Your task to perform on an android device: Open calendar and show me the first week of next month Image 0: 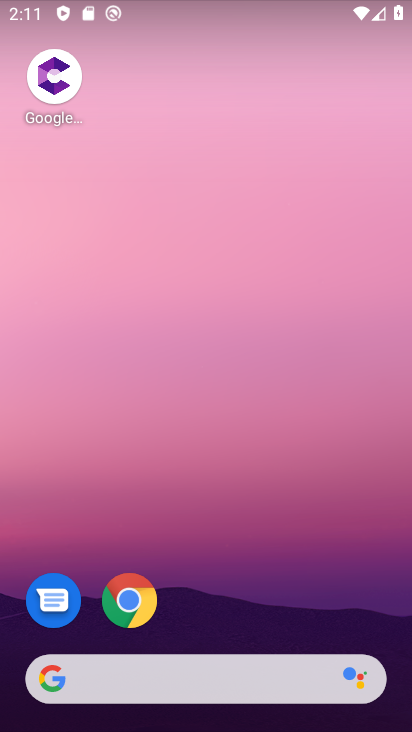
Step 0: drag from (197, 603) to (222, 3)
Your task to perform on an android device: Open calendar and show me the first week of next month Image 1: 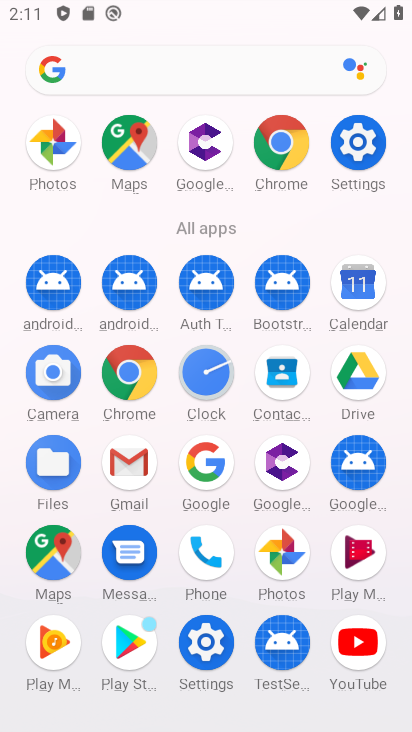
Step 1: click (349, 296)
Your task to perform on an android device: Open calendar and show me the first week of next month Image 2: 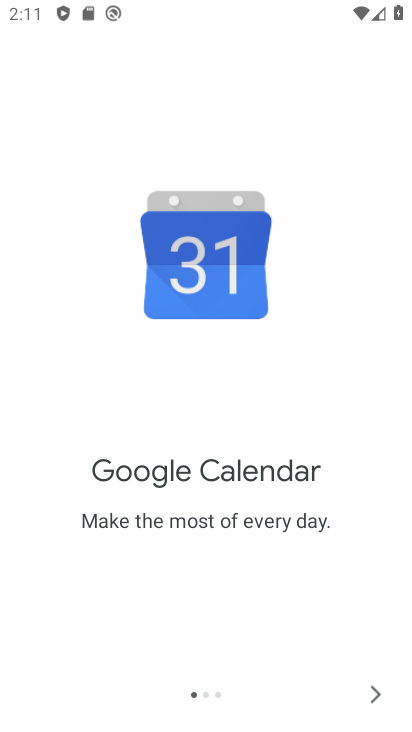
Step 2: click (377, 690)
Your task to perform on an android device: Open calendar and show me the first week of next month Image 3: 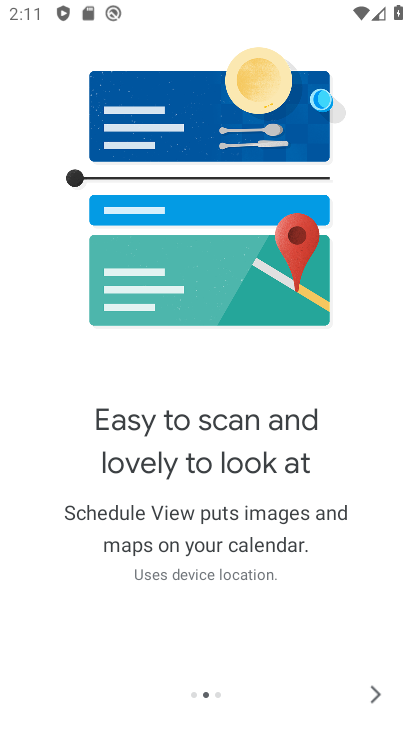
Step 3: click (377, 690)
Your task to perform on an android device: Open calendar and show me the first week of next month Image 4: 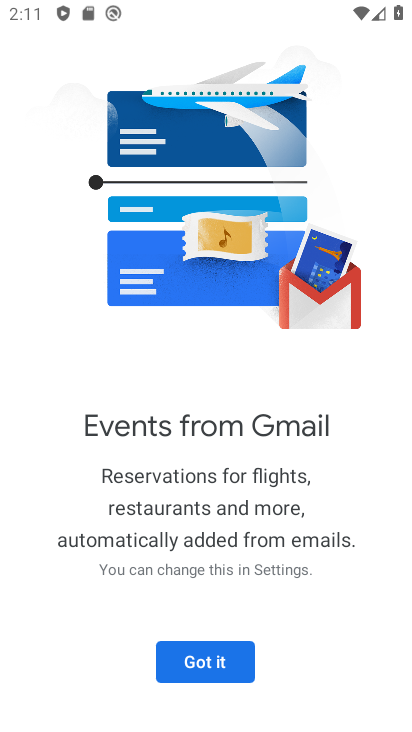
Step 4: click (201, 649)
Your task to perform on an android device: Open calendar and show me the first week of next month Image 5: 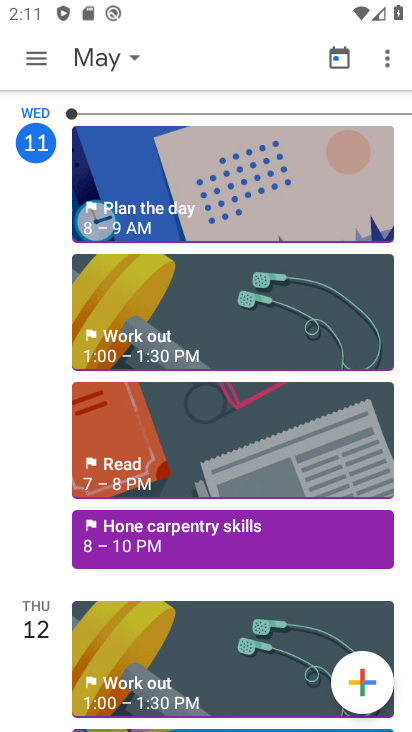
Step 5: click (43, 62)
Your task to perform on an android device: Open calendar and show me the first week of next month Image 6: 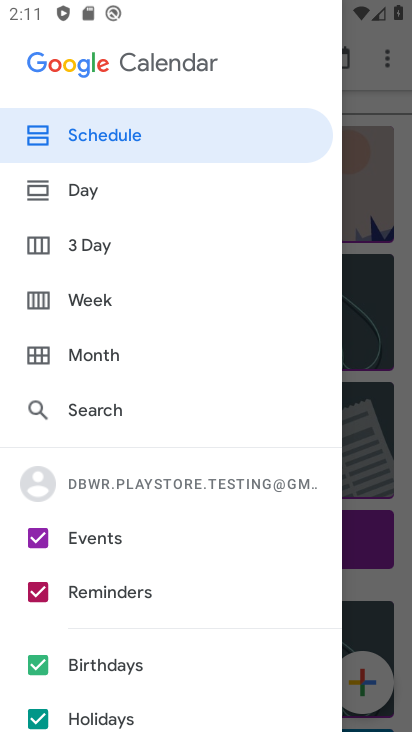
Step 6: click (101, 304)
Your task to perform on an android device: Open calendar and show me the first week of next month Image 7: 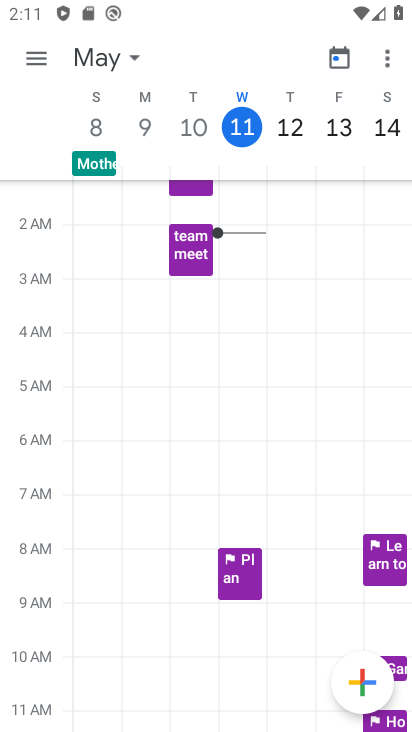
Step 7: click (134, 50)
Your task to perform on an android device: Open calendar and show me the first week of next month Image 8: 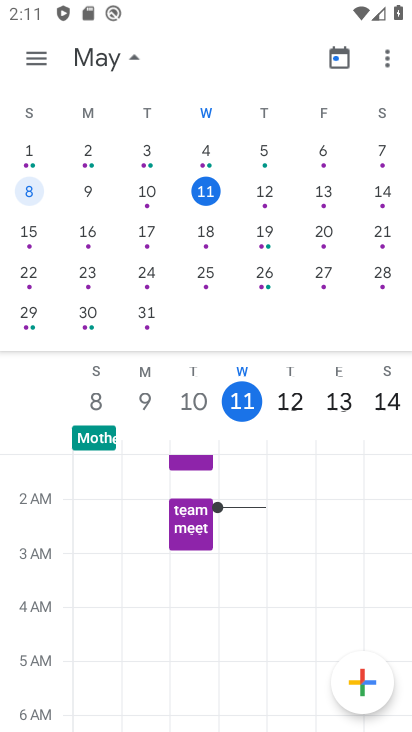
Step 8: drag from (388, 221) to (64, 188)
Your task to perform on an android device: Open calendar and show me the first week of next month Image 9: 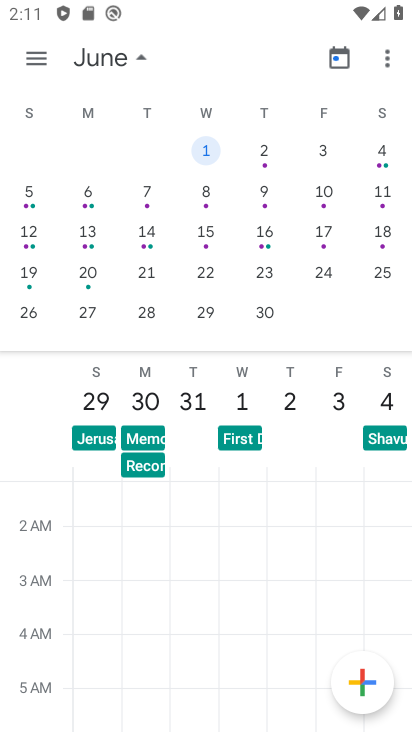
Step 9: click (134, 59)
Your task to perform on an android device: Open calendar and show me the first week of next month Image 10: 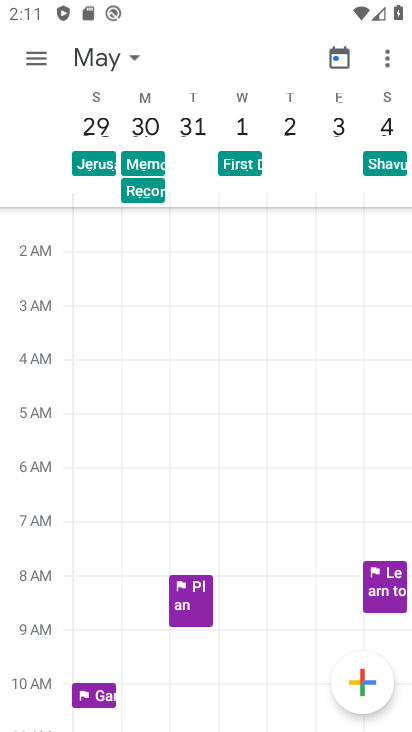
Step 10: task complete